Your task to perform on an android device: turn off picture-in-picture Image 0: 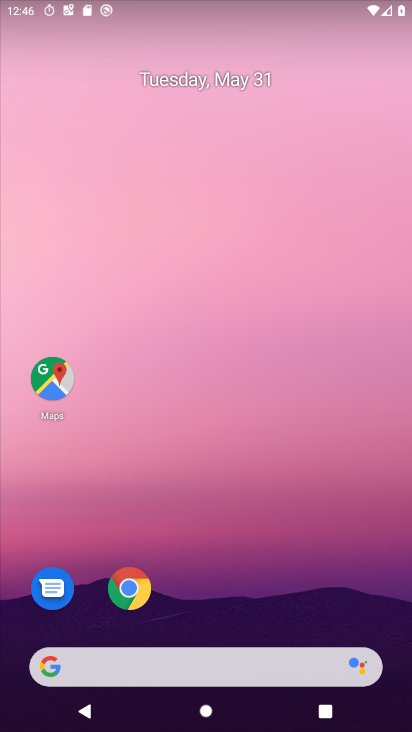
Step 0: drag from (21, 618) to (260, 6)
Your task to perform on an android device: turn off picture-in-picture Image 1: 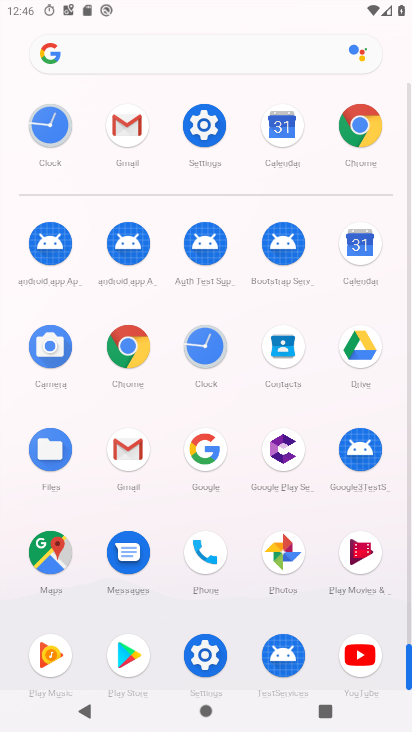
Step 1: click (185, 125)
Your task to perform on an android device: turn off picture-in-picture Image 2: 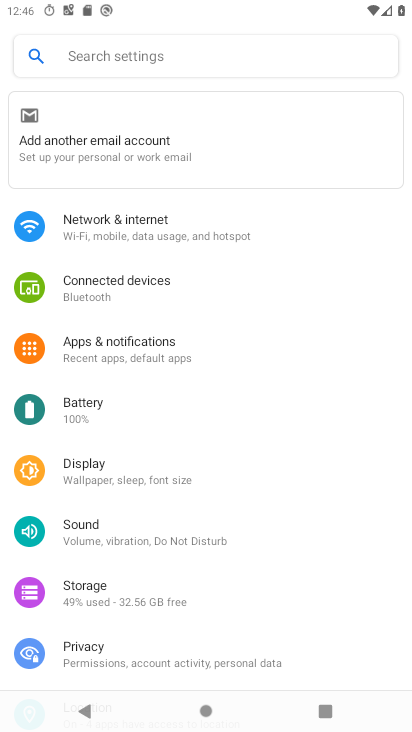
Step 2: click (145, 345)
Your task to perform on an android device: turn off picture-in-picture Image 3: 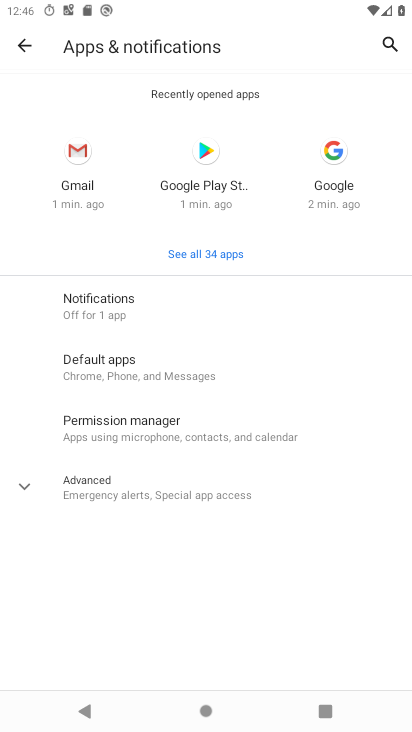
Step 3: click (109, 487)
Your task to perform on an android device: turn off picture-in-picture Image 4: 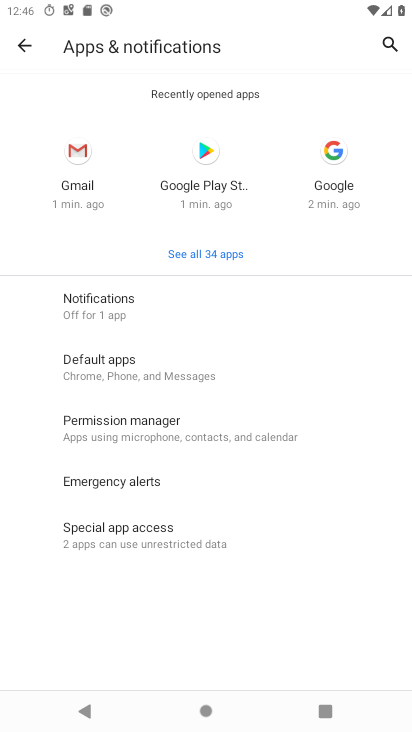
Step 4: click (129, 561)
Your task to perform on an android device: turn off picture-in-picture Image 5: 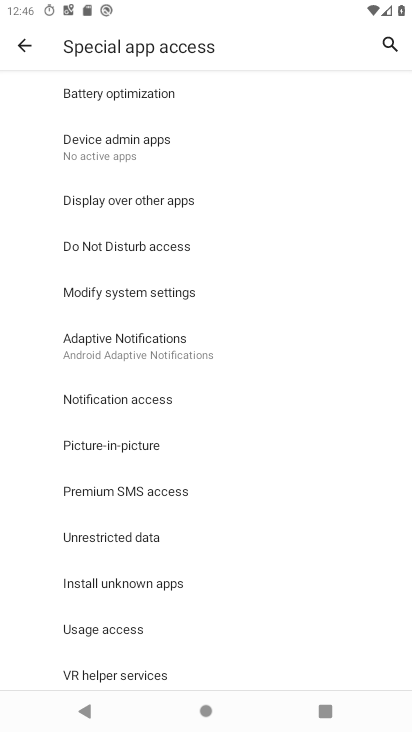
Step 5: click (146, 435)
Your task to perform on an android device: turn off picture-in-picture Image 6: 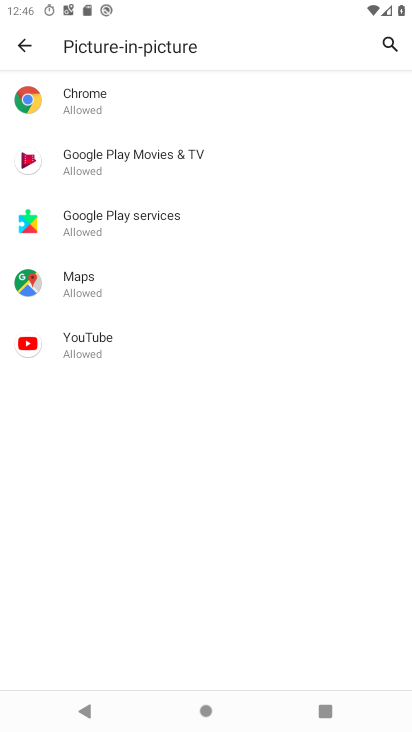
Step 6: click (205, 116)
Your task to perform on an android device: turn off picture-in-picture Image 7: 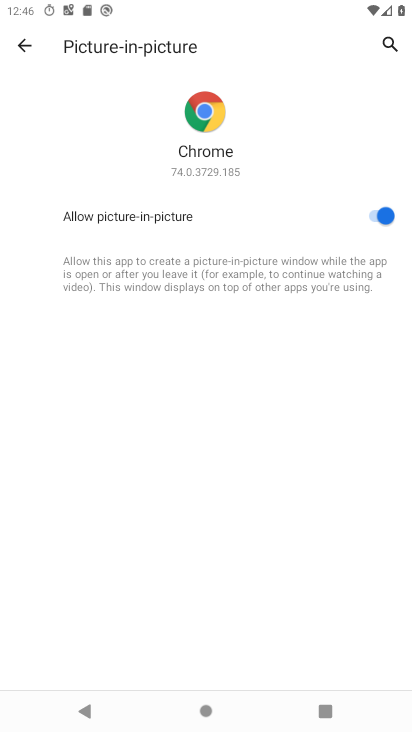
Step 7: click (369, 213)
Your task to perform on an android device: turn off picture-in-picture Image 8: 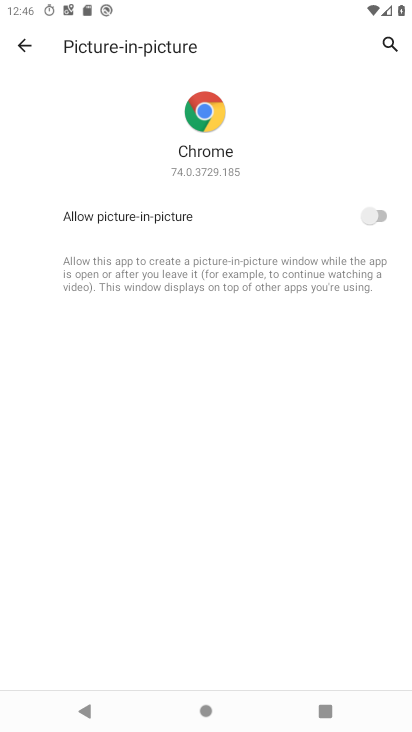
Step 8: press back button
Your task to perform on an android device: turn off picture-in-picture Image 9: 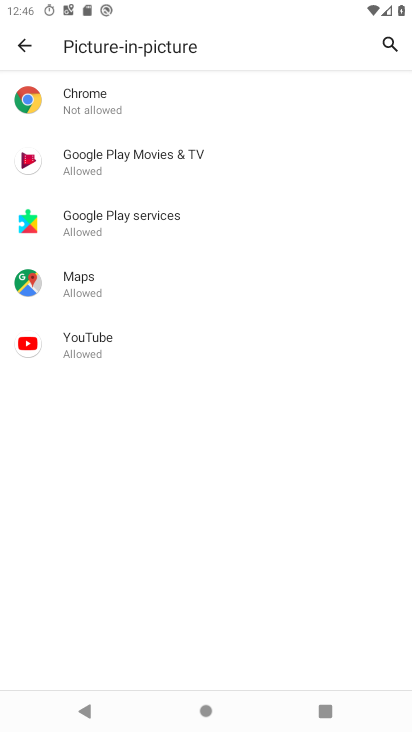
Step 9: click (55, 158)
Your task to perform on an android device: turn off picture-in-picture Image 10: 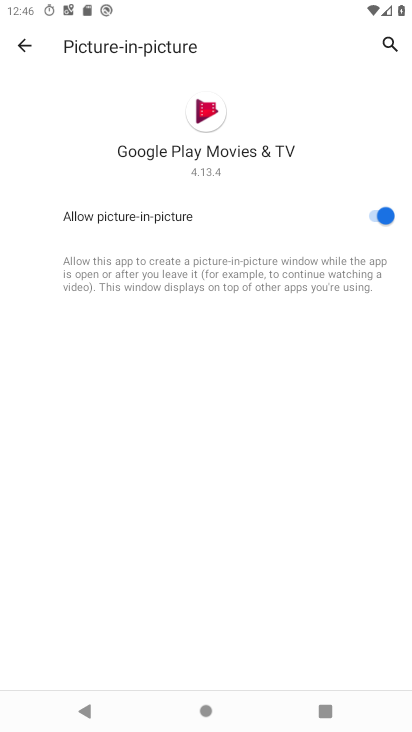
Step 10: click (366, 213)
Your task to perform on an android device: turn off picture-in-picture Image 11: 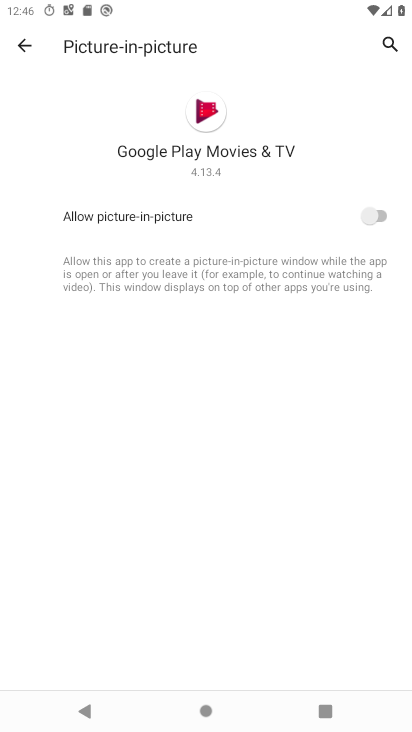
Step 11: press back button
Your task to perform on an android device: turn off picture-in-picture Image 12: 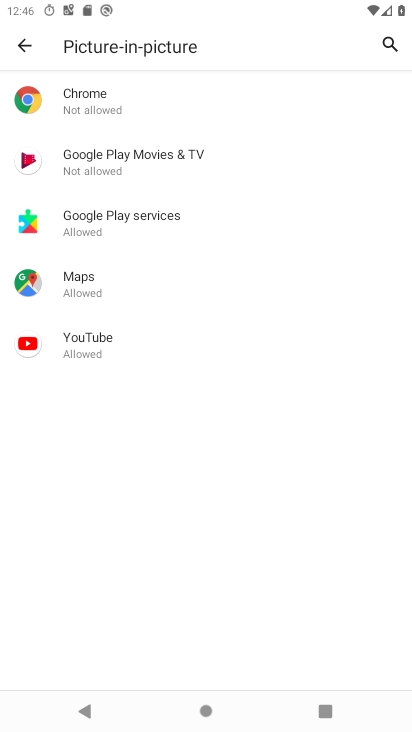
Step 12: click (184, 245)
Your task to perform on an android device: turn off picture-in-picture Image 13: 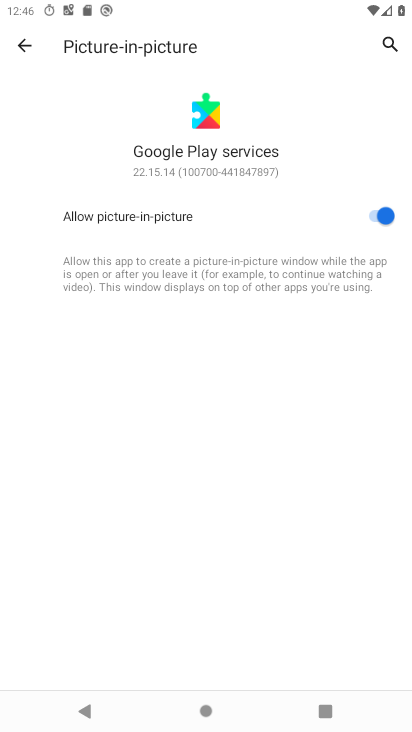
Step 13: click (371, 207)
Your task to perform on an android device: turn off picture-in-picture Image 14: 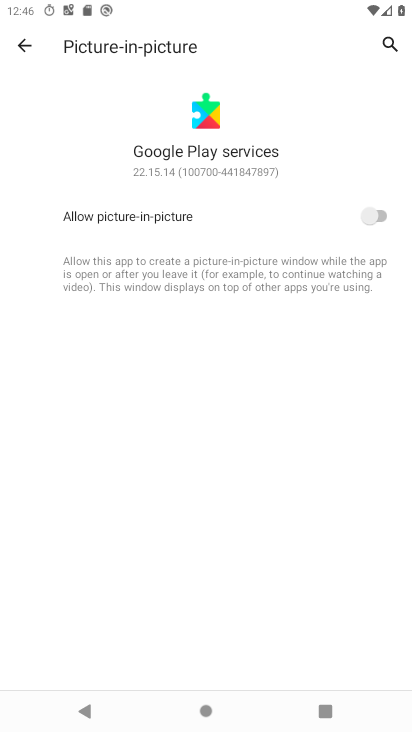
Step 14: press back button
Your task to perform on an android device: turn off picture-in-picture Image 15: 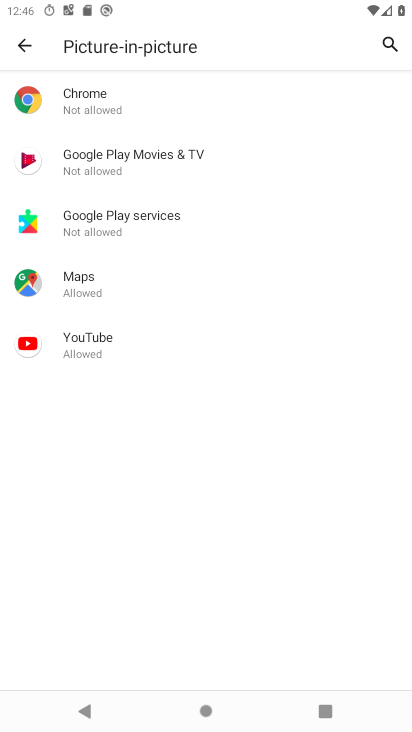
Step 15: click (102, 293)
Your task to perform on an android device: turn off picture-in-picture Image 16: 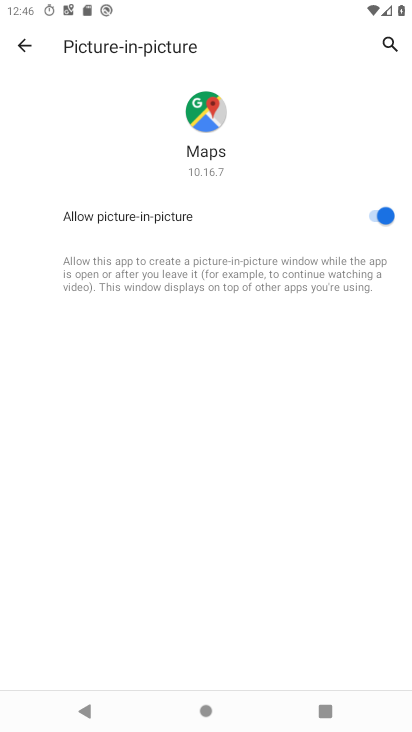
Step 16: click (378, 212)
Your task to perform on an android device: turn off picture-in-picture Image 17: 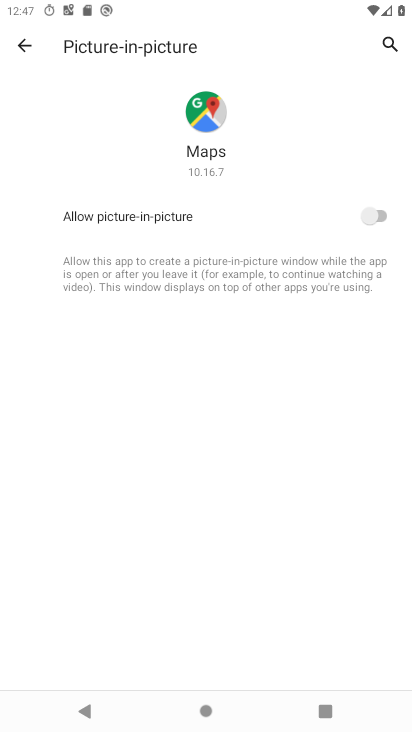
Step 17: press back button
Your task to perform on an android device: turn off picture-in-picture Image 18: 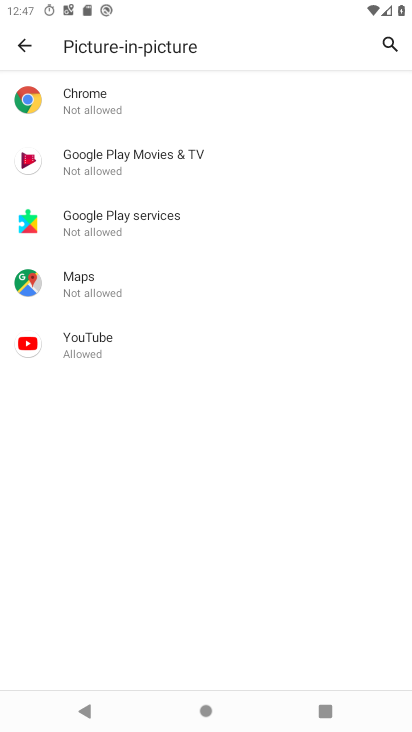
Step 18: click (135, 350)
Your task to perform on an android device: turn off picture-in-picture Image 19: 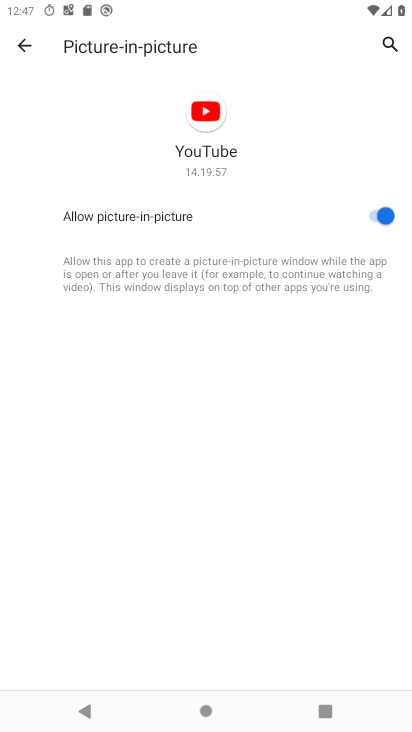
Step 19: click (376, 217)
Your task to perform on an android device: turn off picture-in-picture Image 20: 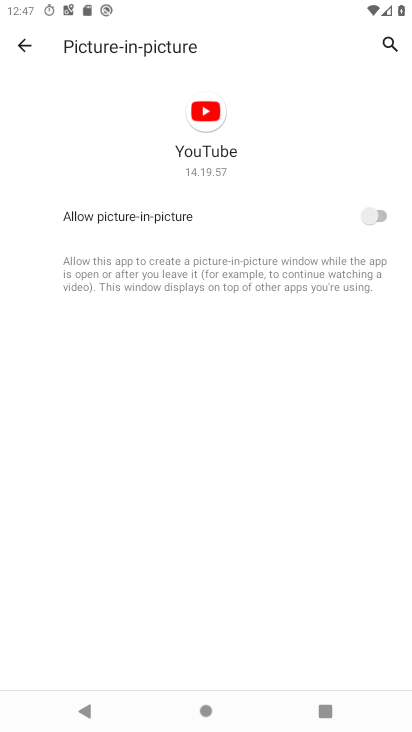
Step 20: task complete